Your task to perform on an android device: Toggle the flashlight Image 0: 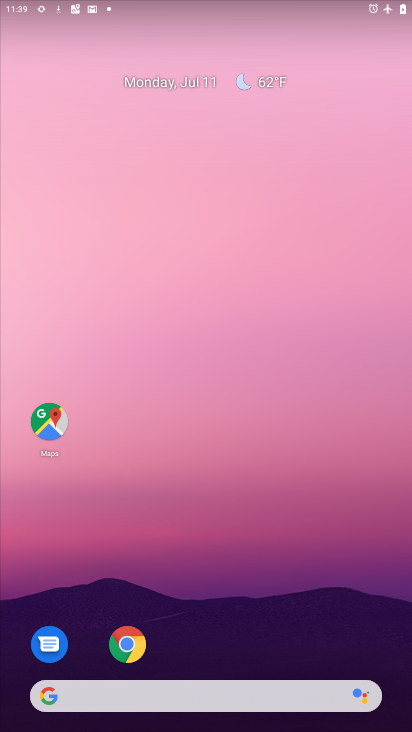
Step 0: drag from (213, 665) to (243, 165)
Your task to perform on an android device: Toggle the flashlight Image 1: 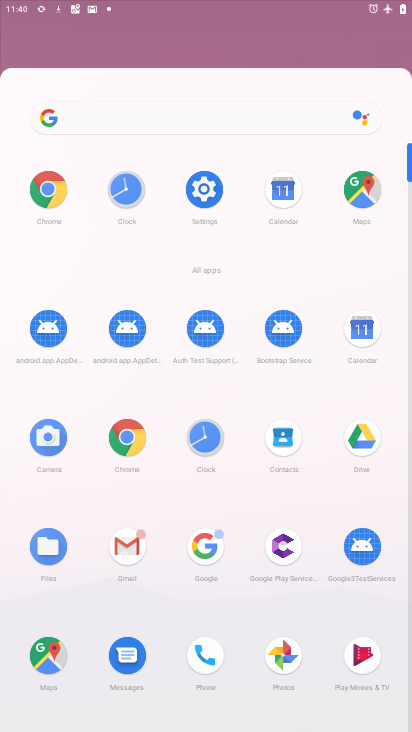
Step 1: click (201, 124)
Your task to perform on an android device: Toggle the flashlight Image 2: 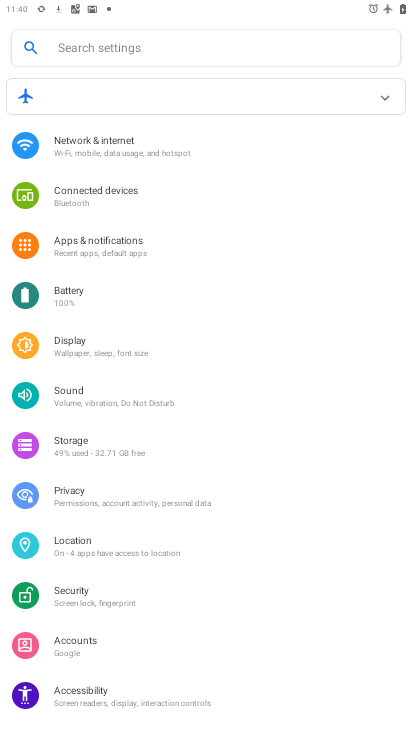
Step 2: task complete